Your task to perform on an android device: Go to Reddit.com Image 0: 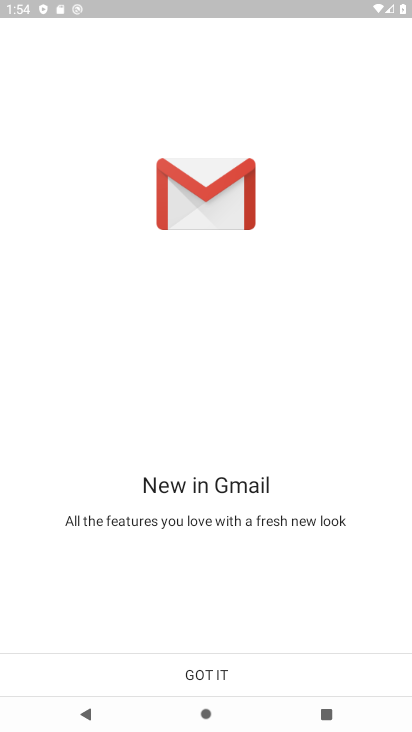
Step 0: press home button
Your task to perform on an android device: Go to Reddit.com Image 1: 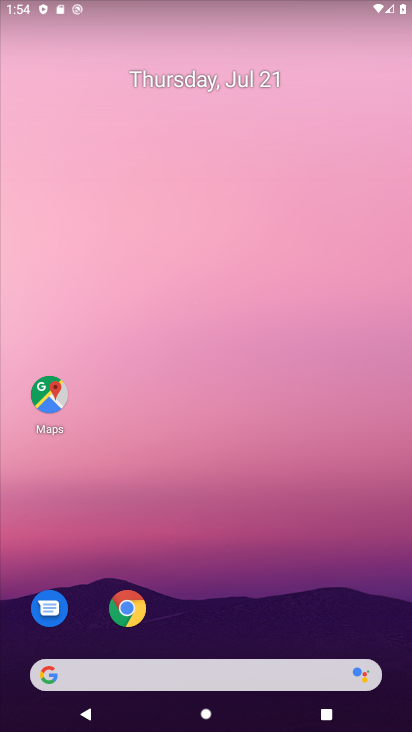
Step 1: click (130, 613)
Your task to perform on an android device: Go to Reddit.com Image 2: 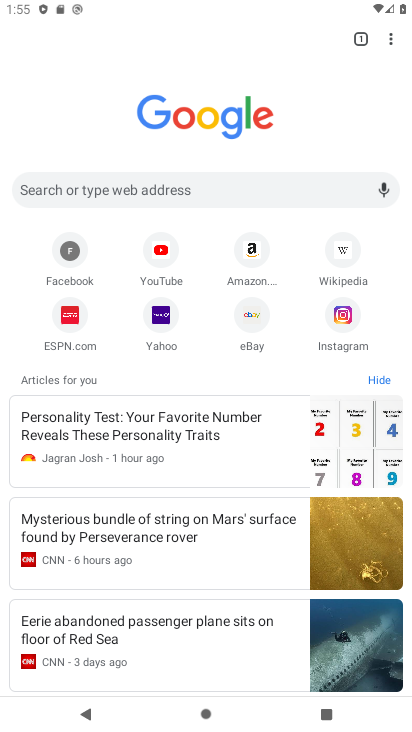
Step 2: click (129, 183)
Your task to perform on an android device: Go to Reddit.com Image 3: 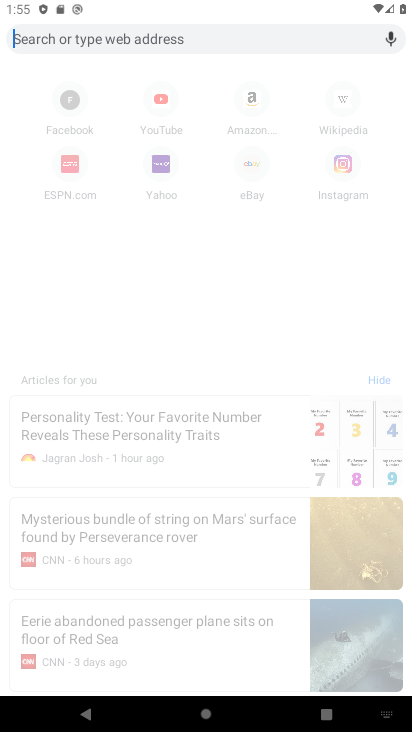
Step 3: type "reddit.com"
Your task to perform on an android device: Go to Reddit.com Image 4: 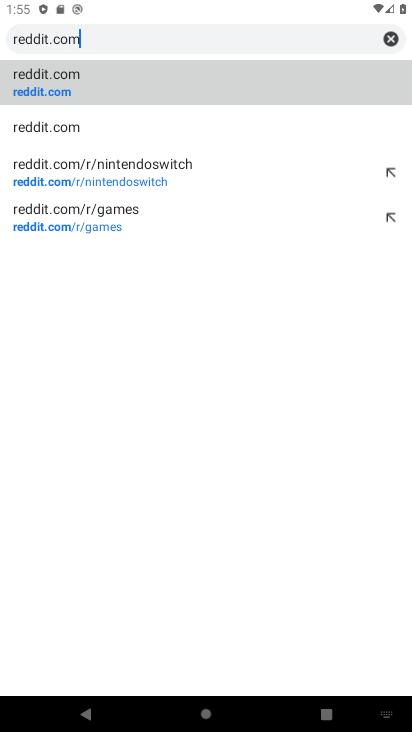
Step 4: click (53, 128)
Your task to perform on an android device: Go to Reddit.com Image 5: 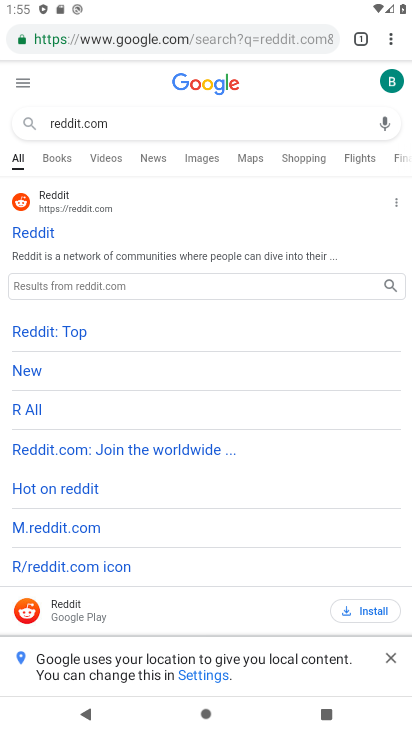
Step 5: click (28, 234)
Your task to perform on an android device: Go to Reddit.com Image 6: 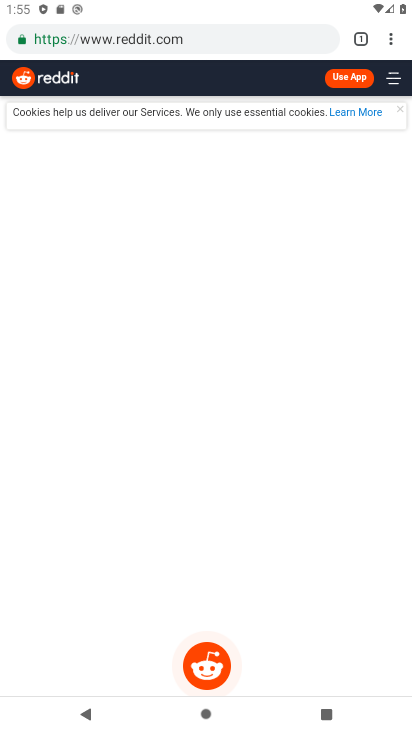
Step 6: task complete